Your task to perform on an android device: Open accessibility settings Image 0: 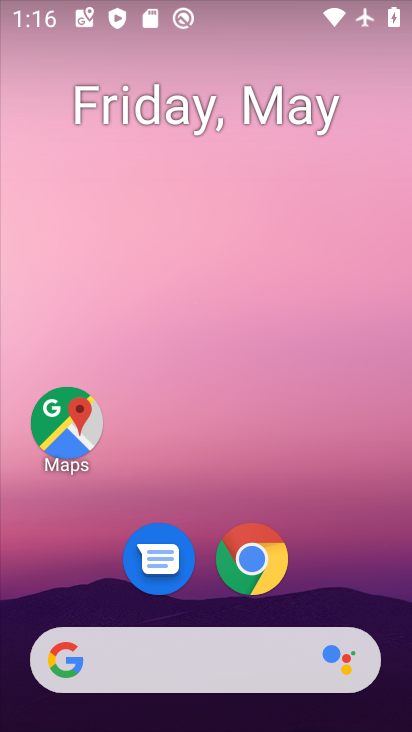
Step 0: drag from (334, 538) to (235, 83)
Your task to perform on an android device: Open accessibility settings Image 1: 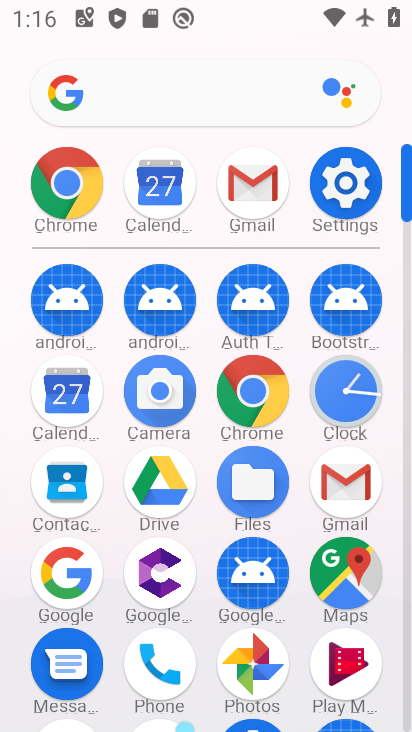
Step 1: click (329, 198)
Your task to perform on an android device: Open accessibility settings Image 2: 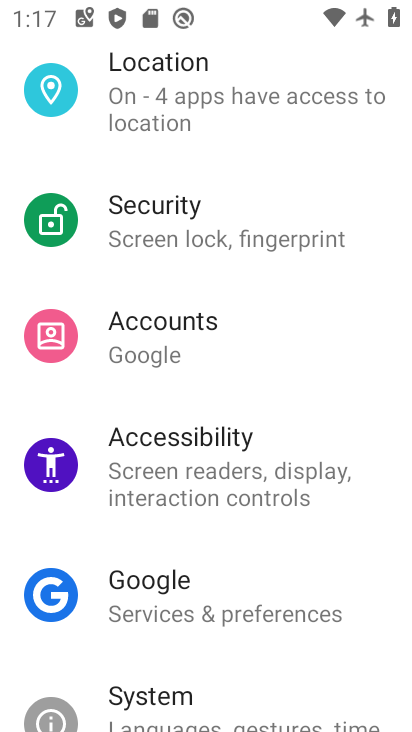
Step 2: click (192, 466)
Your task to perform on an android device: Open accessibility settings Image 3: 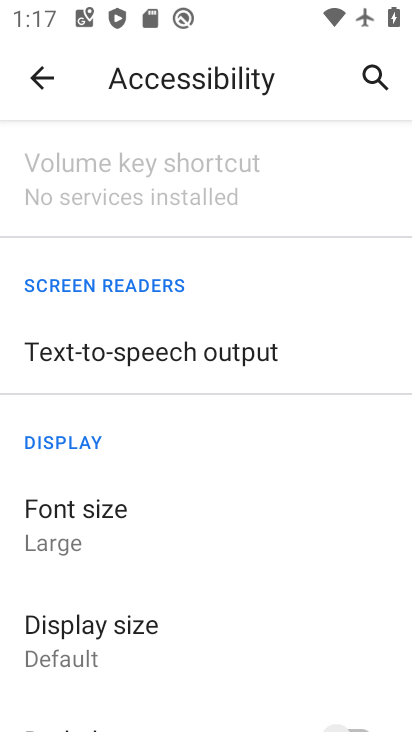
Step 3: task complete